Your task to perform on an android device: Open Maps and search for coffee Image 0: 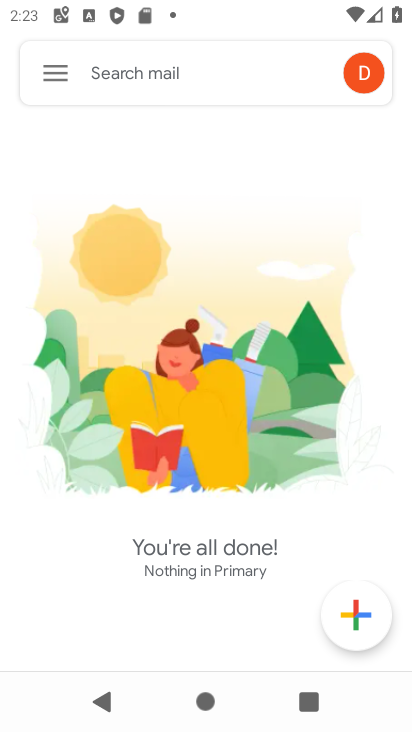
Step 0: press home button
Your task to perform on an android device: Open Maps and search for coffee Image 1: 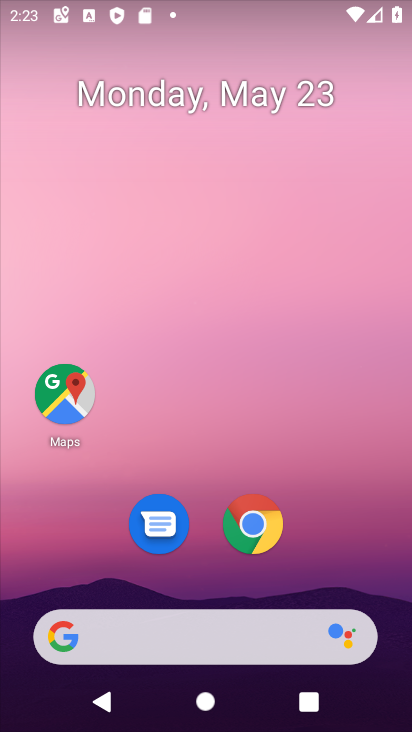
Step 1: click (65, 388)
Your task to perform on an android device: Open Maps and search for coffee Image 2: 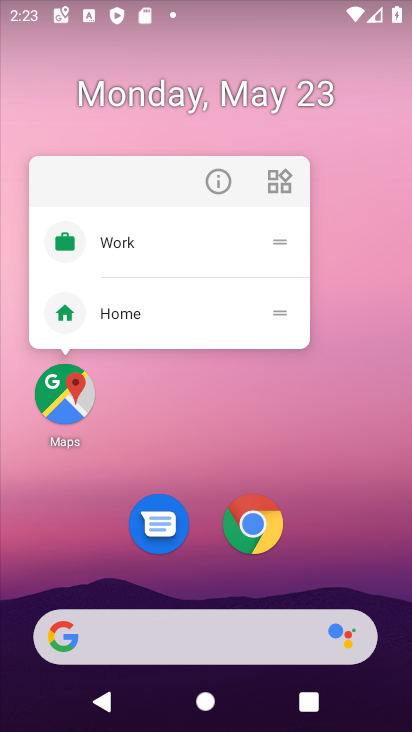
Step 2: click (68, 391)
Your task to perform on an android device: Open Maps and search for coffee Image 3: 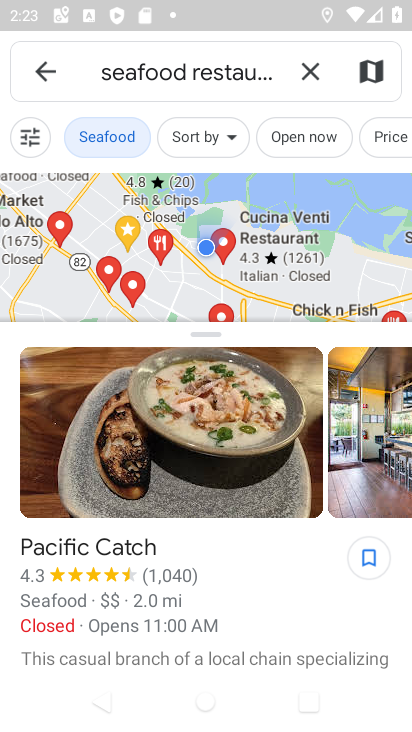
Step 3: click (307, 61)
Your task to perform on an android device: Open Maps and search for coffee Image 4: 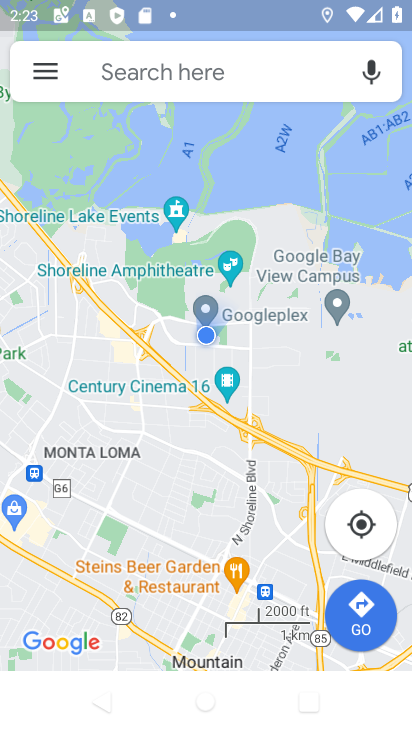
Step 4: click (259, 80)
Your task to perform on an android device: Open Maps and search for coffee Image 5: 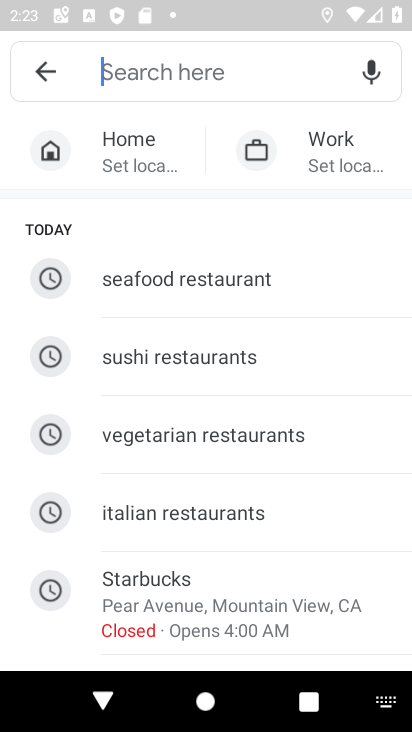
Step 5: type "coffee"
Your task to perform on an android device: Open Maps and search for coffee Image 6: 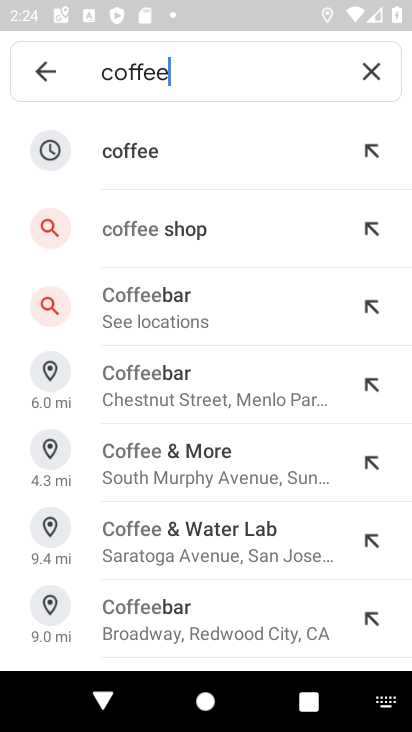
Step 6: click (145, 152)
Your task to perform on an android device: Open Maps and search for coffee Image 7: 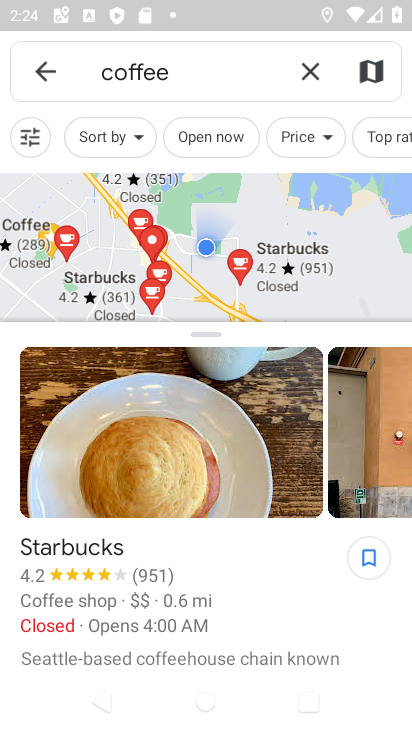
Step 7: task complete